Your task to perform on an android device: See recent photos Image 0: 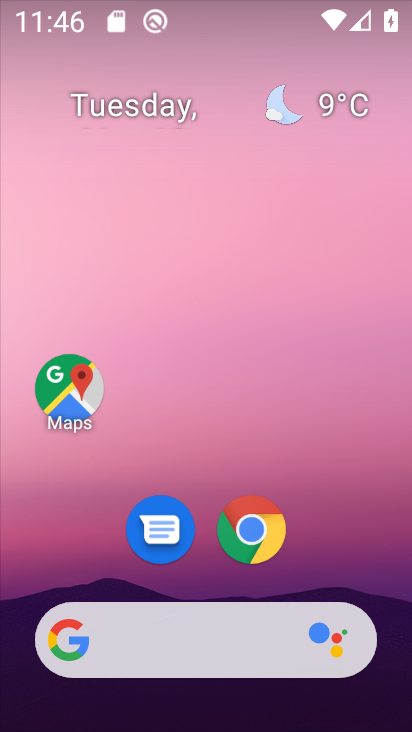
Step 0: drag from (294, 525) to (300, 186)
Your task to perform on an android device: See recent photos Image 1: 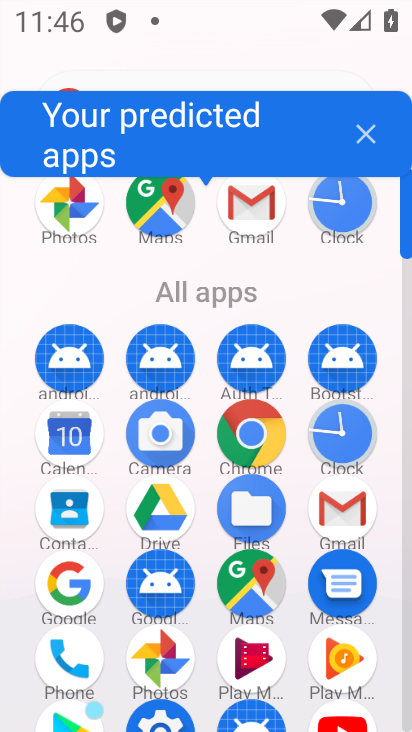
Step 1: click (73, 218)
Your task to perform on an android device: See recent photos Image 2: 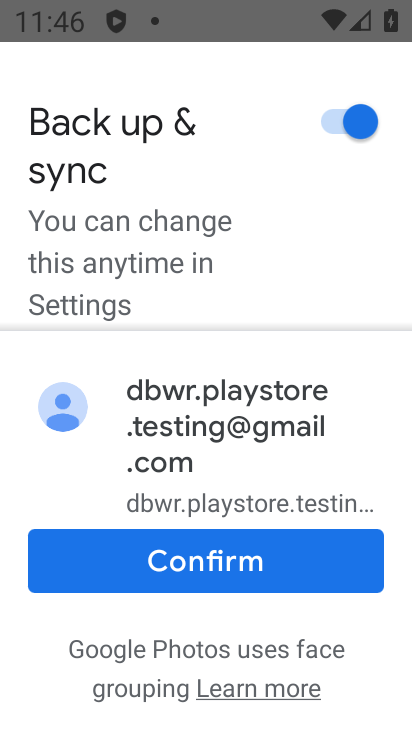
Step 2: click (237, 560)
Your task to perform on an android device: See recent photos Image 3: 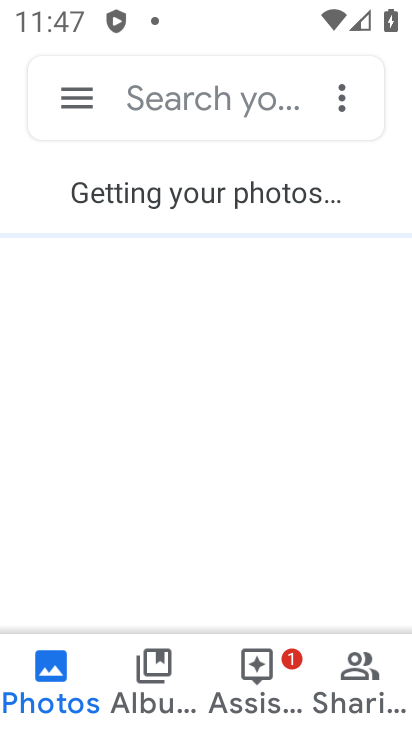
Step 3: click (156, 666)
Your task to perform on an android device: See recent photos Image 4: 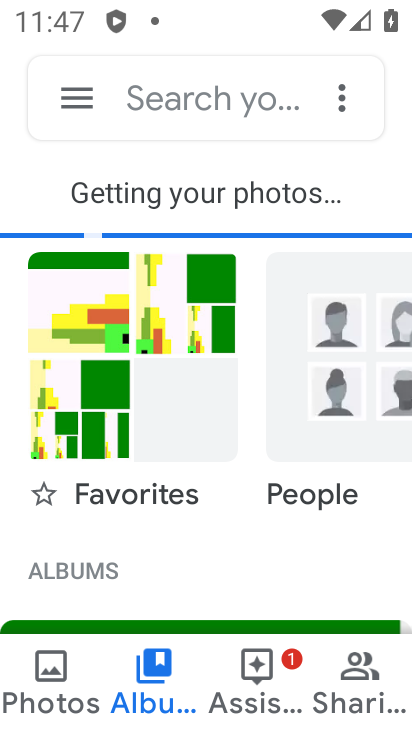
Step 4: click (63, 680)
Your task to perform on an android device: See recent photos Image 5: 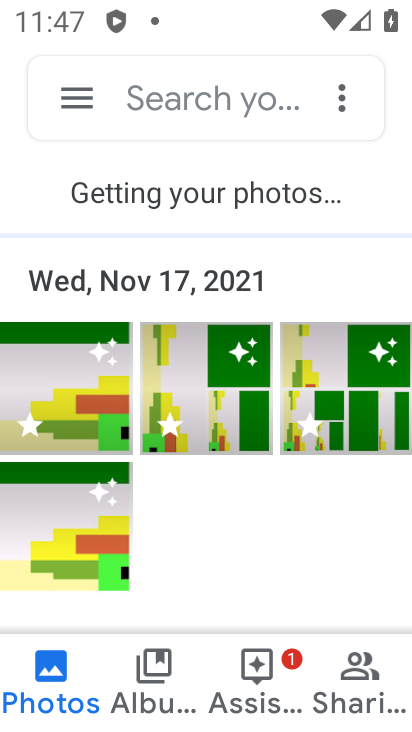
Step 5: task complete